Your task to perform on an android device: open app "Instagram" (install if not already installed) and go to login screen Image 0: 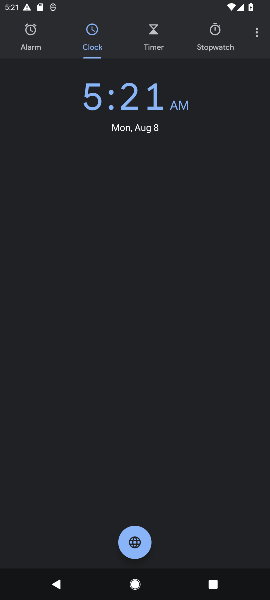
Step 0: press home button
Your task to perform on an android device: open app "Instagram" (install if not already installed) and go to login screen Image 1: 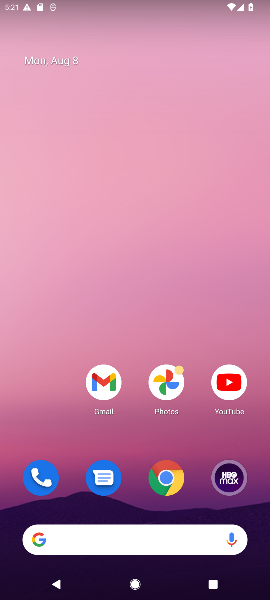
Step 1: drag from (57, 398) to (146, 0)
Your task to perform on an android device: open app "Instagram" (install if not already installed) and go to login screen Image 2: 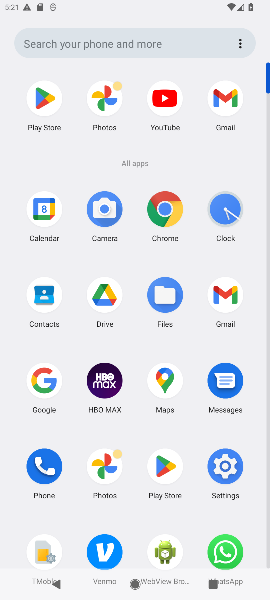
Step 2: click (165, 462)
Your task to perform on an android device: open app "Instagram" (install if not already installed) and go to login screen Image 3: 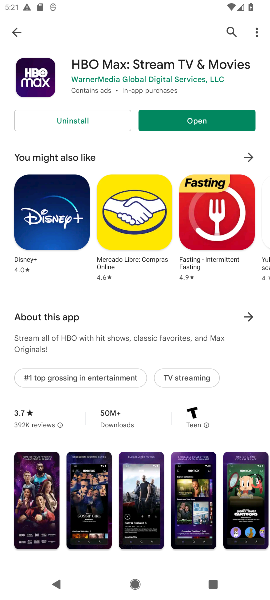
Step 3: click (16, 26)
Your task to perform on an android device: open app "Instagram" (install if not already installed) and go to login screen Image 4: 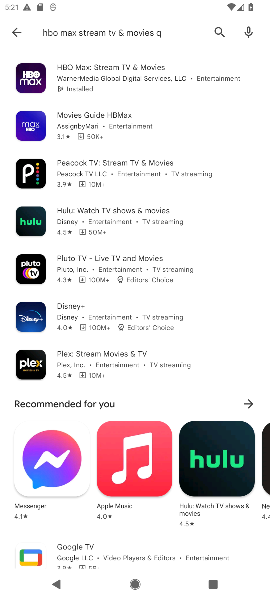
Step 4: click (179, 34)
Your task to perform on an android device: open app "Instagram" (install if not already installed) and go to login screen Image 5: 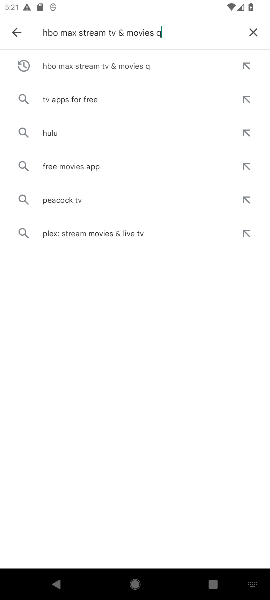
Step 5: click (251, 27)
Your task to perform on an android device: open app "Instagram" (install if not already installed) and go to login screen Image 6: 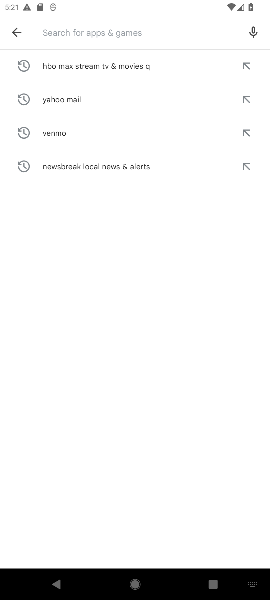
Step 6: type "instagram"
Your task to perform on an android device: open app "Instagram" (install if not already installed) and go to login screen Image 7: 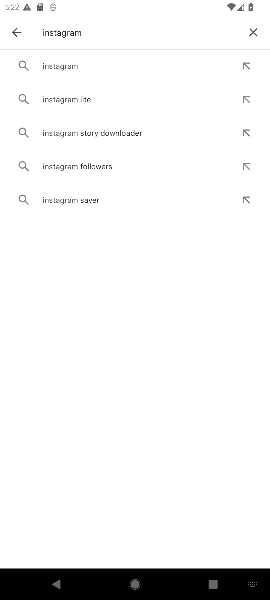
Step 7: click (67, 65)
Your task to perform on an android device: open app "Instagram" (install if not already installed) and go to login screen Image 8: 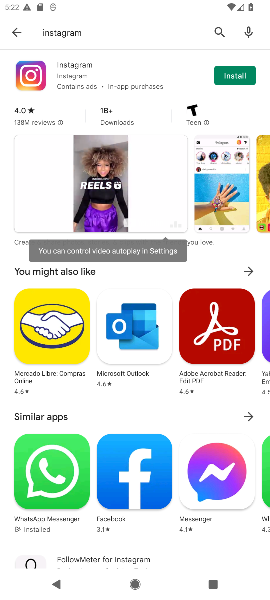
Step 8: click (236, 77)
Your task to perform on an android device: open app "Instagram" (install if not already installed) and go to login screen Image 9: 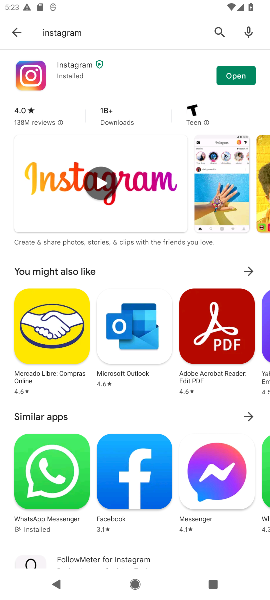
Step 9: click (235, 72)
Your task to perform on an android device: open app "Instagram" (install if not already installed) and go to login screen Image 10: 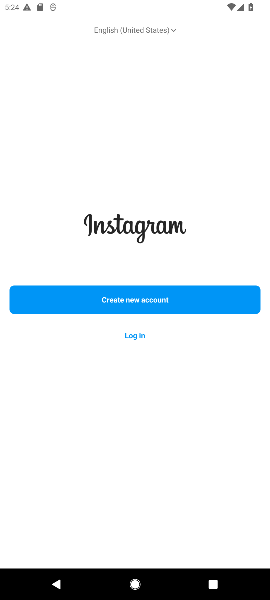
Step 10: click (137, 334)
Your task to perform on an android device: open app "Instagram" (install if not already installed) and go to login screen Image 11: 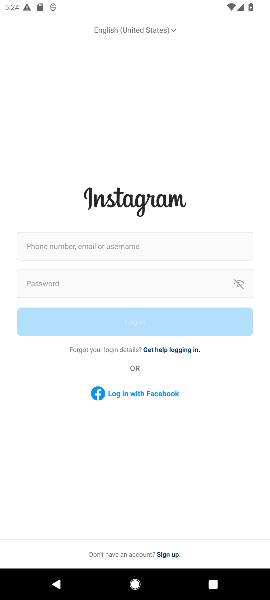
Step 11: task complete